Your task to perform on an android device: make emails show in primary in the gmail app Image 0: 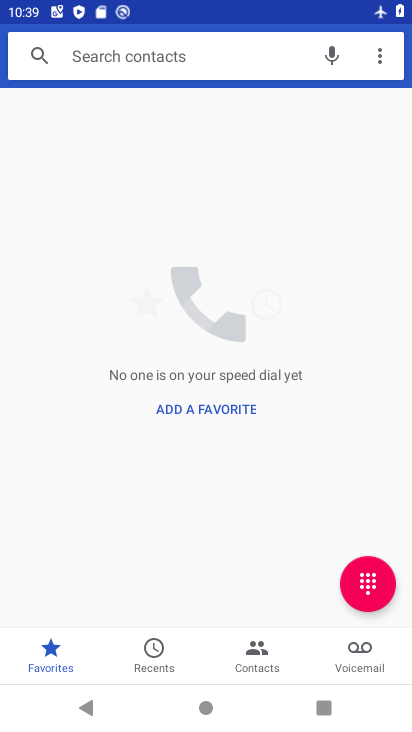
Step 0: press home button
Your task to perform on an android device: make emails show in primary in the gmail app Image 1: 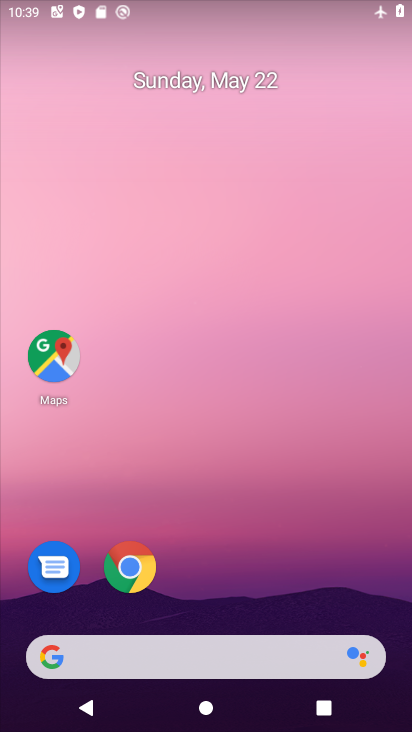
Step 1: drag from (375, 594) to (374, 131)
Your task to perform on an android device: make emails show in primary in the gmail app Image 2: 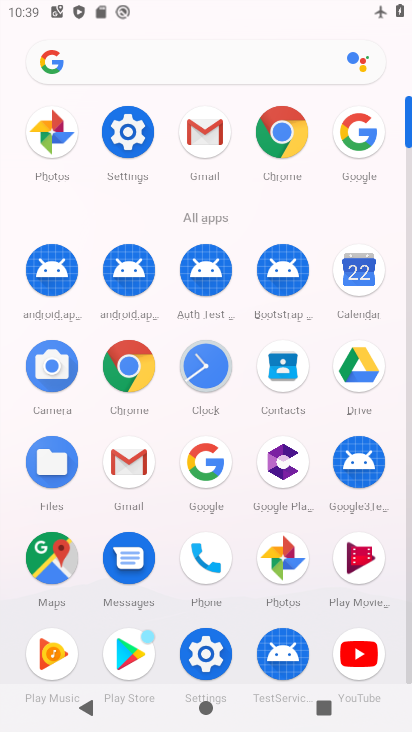
Step 2: click (127, 465)
Your task to perform on an android device: make emails show in primary in the gmail app Image 3: 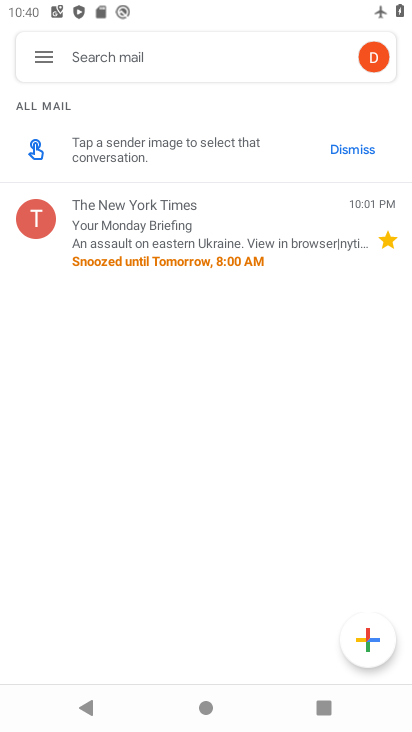
Step 3: click (37, 50)
Your task to perform on an android device: make emails show in primary in the gmail app Image 4: 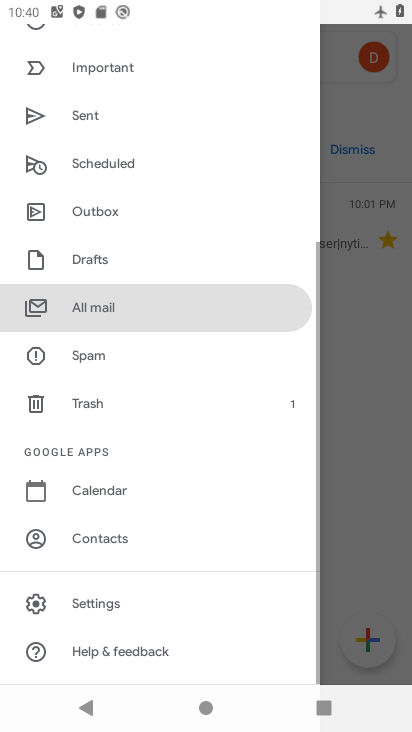
Step 4: drag from (213, 123) to (215, 644)
Your task to perform on an android device: make emails show in primary in the gmail app Image 5: 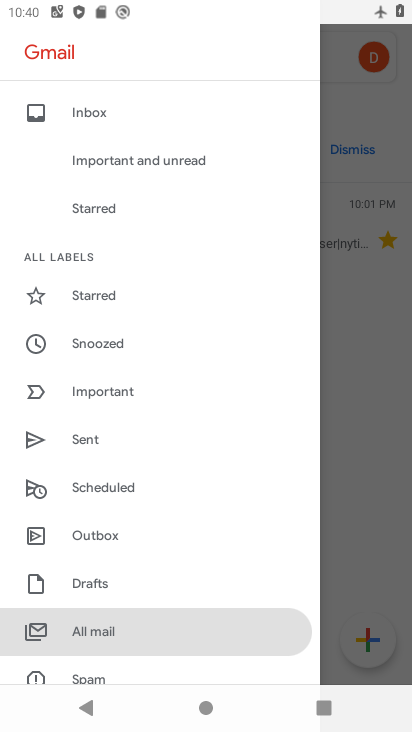
Step 5: drag from (230, 570) to (279, 130)
Your task to perform on an android device: make emails show in primary in the gmail app Image 6: 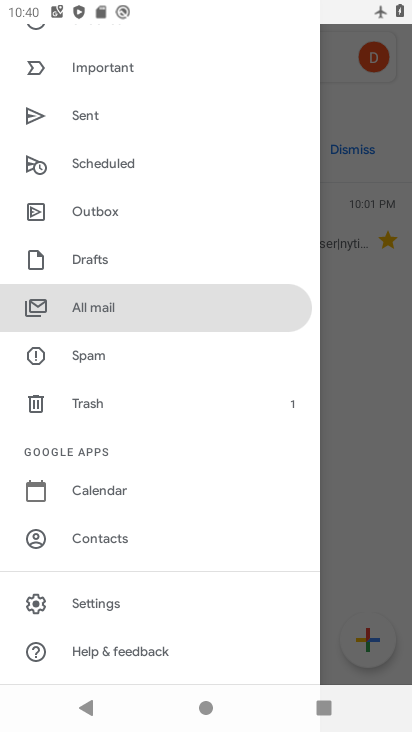
Step 6: drag from (284, 591) to (259, 219)
Your task to perform on an android device: make emails show in primary in the gmail app Image 7: 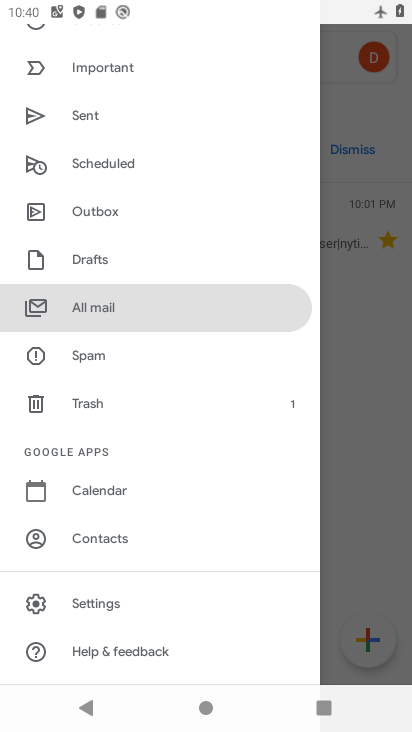
Step 7: click (137, 593)
Your task to perform on an android device: make emails show in primary in the gmail app Image 8: 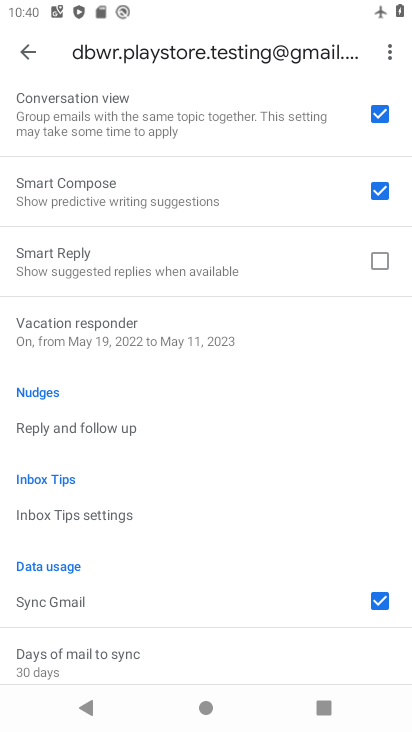
Step 8: drag from (178, 200) to (241, 512)
Your task to perform on an android device: make emails show in primary in the gmail app Image 9: 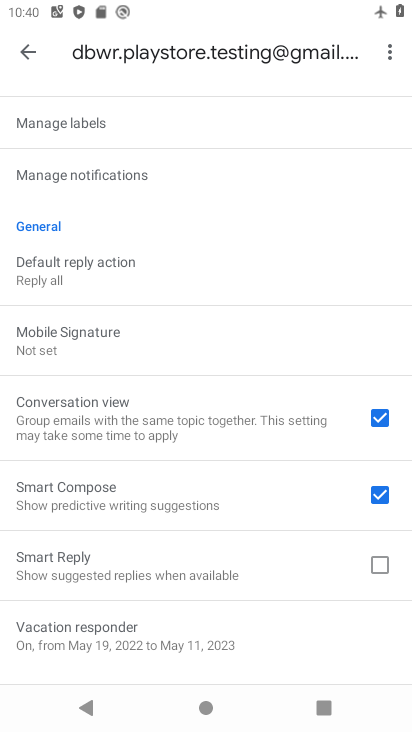
Step 9: drag from (259, 206) to (296, 600)
Your task to perform on an android device: make emails show in primary in the gmail app Image 10: 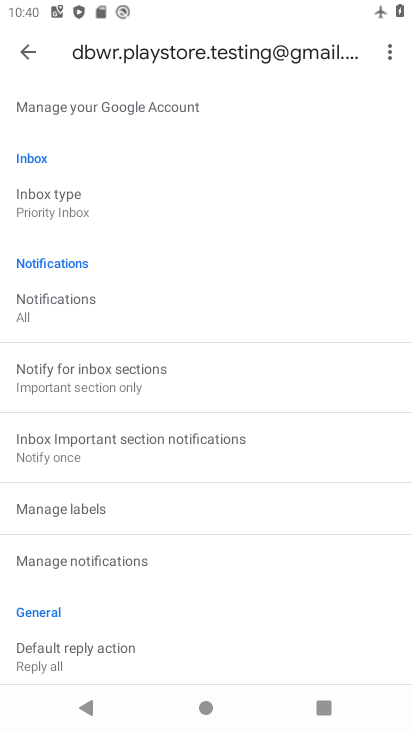
Step 10: click (141, 212)
Your task to perform on an android device: make emails show in primary in the gmail app Image 11: 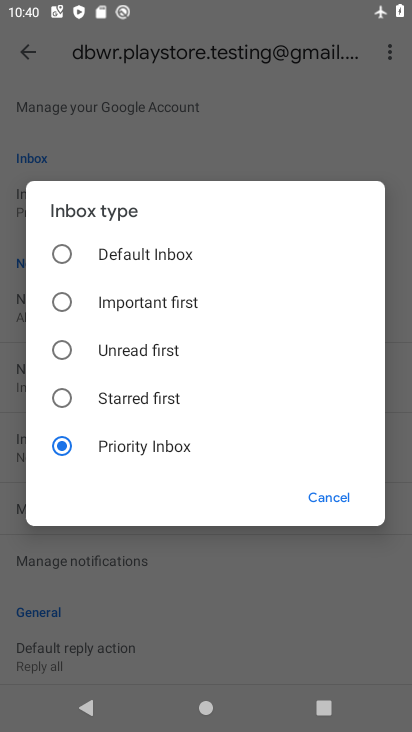
Step 11: click (76, 248)
Your task to perform on an android device: make emails show in primary in the gmail app Image 12: 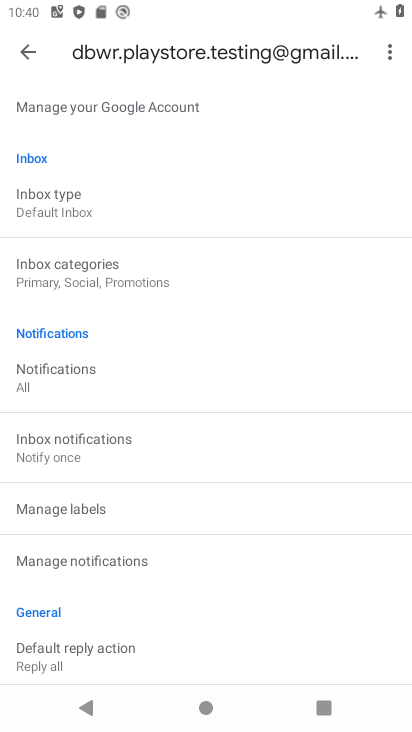
Step 12: task complete